Your task to perform on an android device: toggle pop-ups in chrome Image 0: 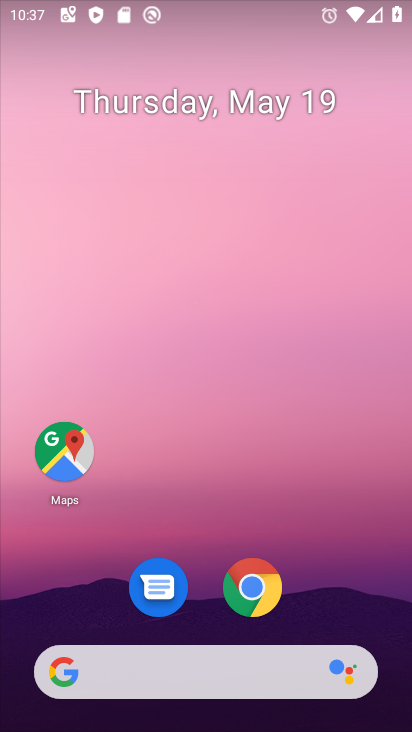
Step 0: drag from (347, 574) to (339, 79)
Your task to perform on an android device: toggle pop-ups in chrome Image 1: 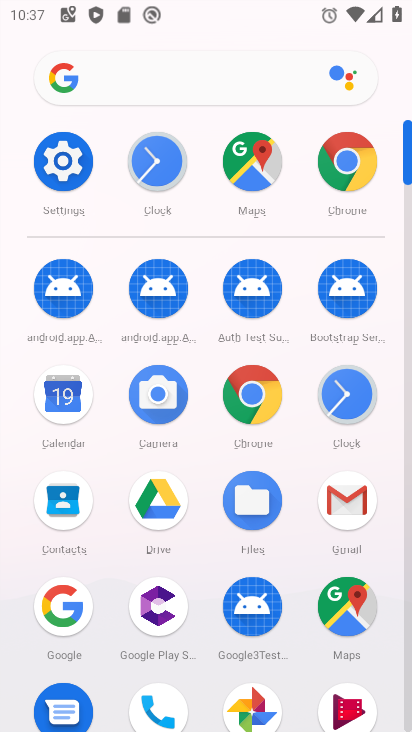
Step 1: click (248, 393)
Your task to perform on an android device: toggle pop-ups in chrome Image 2: 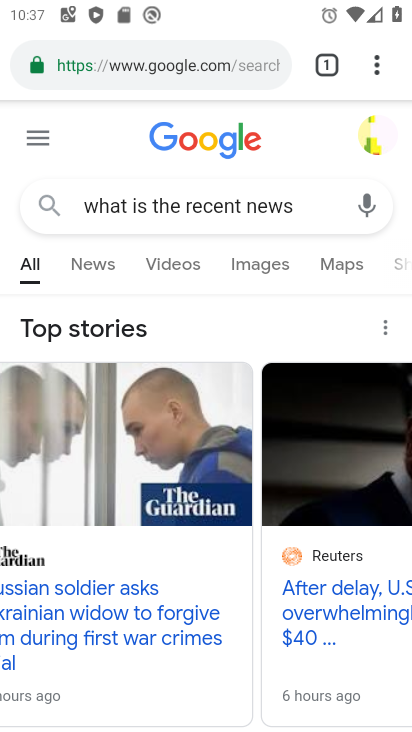
Step 2: drag from (375, 74) to (214, 637)
Your task to perform on an android device: toggle pop-ups in chrome Image 3: 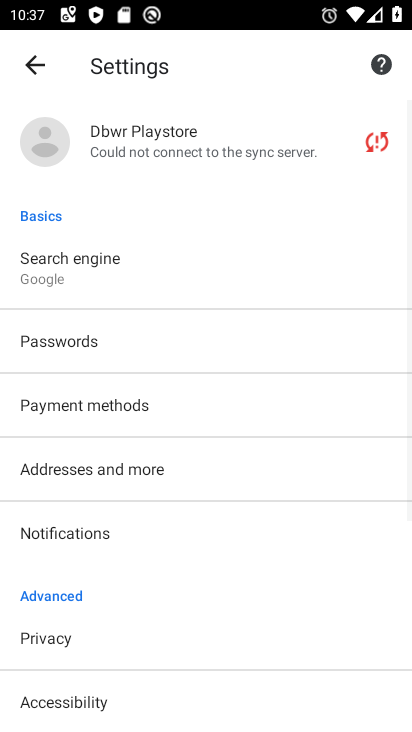
Step 3: drag from (236, 671) to (238, 287)
Your task to perform on an android device: toggle pop-ups in chrome Image 4: 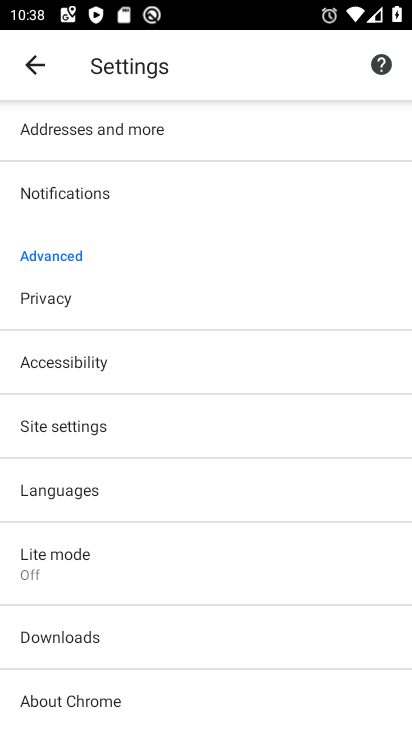
Step 4: click (169, 433)
Your task to perform on an android device: toggle pop-ups in chrome Image 5: 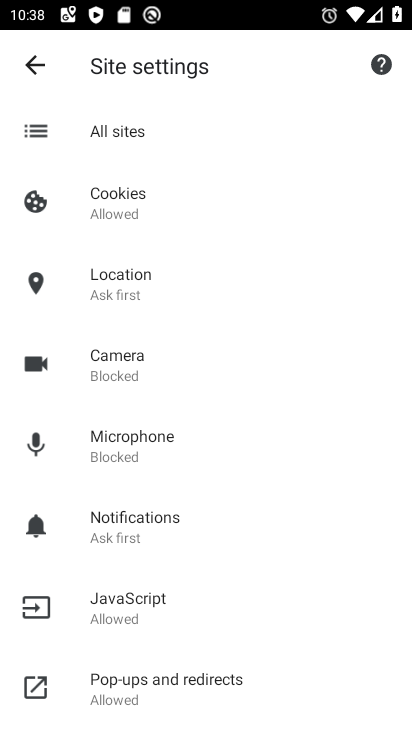
Step 5: click (226, 681)
Your task to perform on an android device: toggle pop-ups in chrome Image 6: 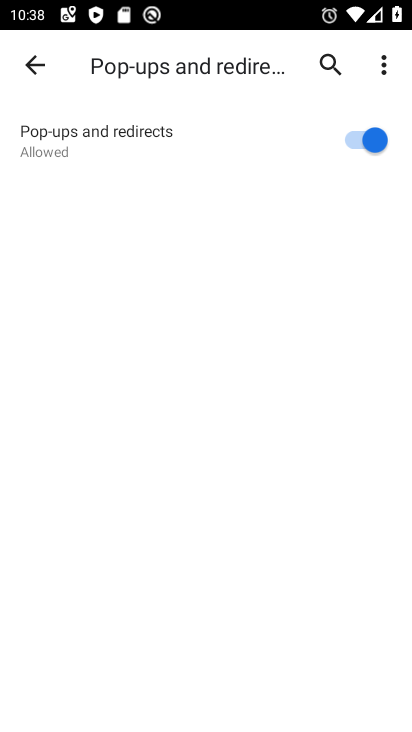
Step 6: click (349, 144)
Your task to perform on an android device: toggle pop-ups in chrome Image 7: 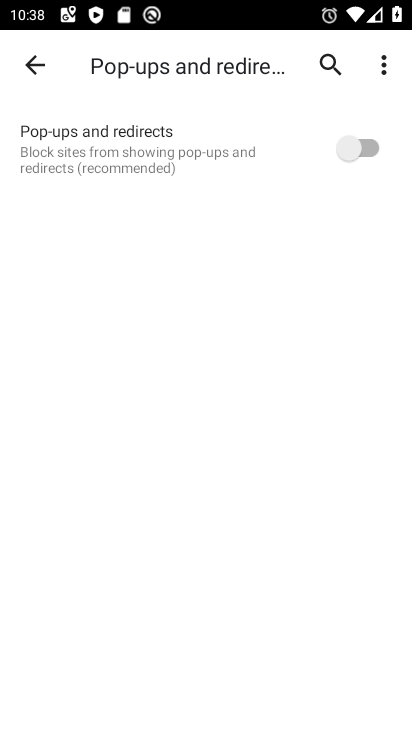
Step 7: task complete